Your task to perform on an android device: Turn on the flashlight Image 0: 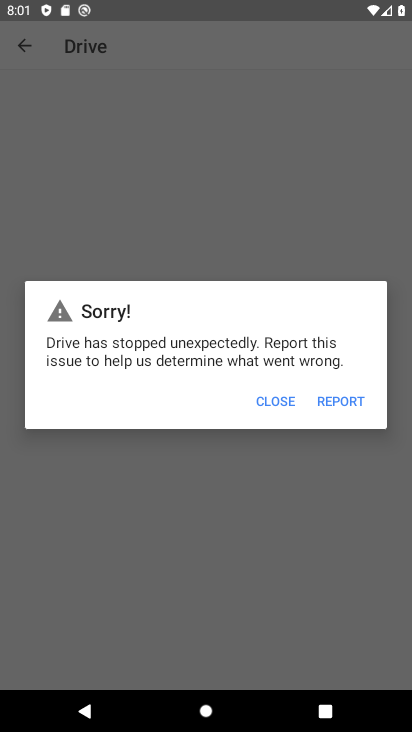
Step 0: press home button
Your task to perform on an android device: Turn on the flashlight Image 1: 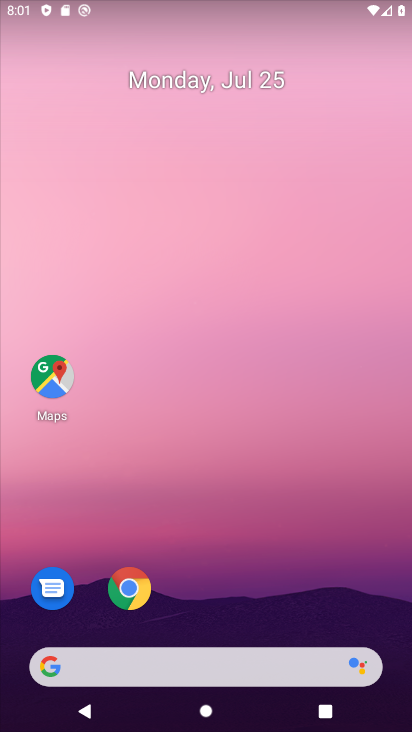
Step 1: drag from (149, 2) to (200, 441)
Your task to perform on an android device: Turn on the flashlight Image 2: 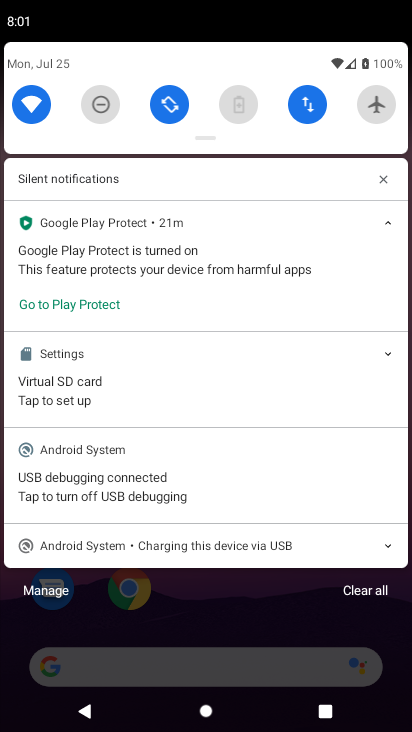
Step 2: drag from (181, 170) to (189, 489)
Your task to perform on an android device: Turn on the flashlight Image 3: 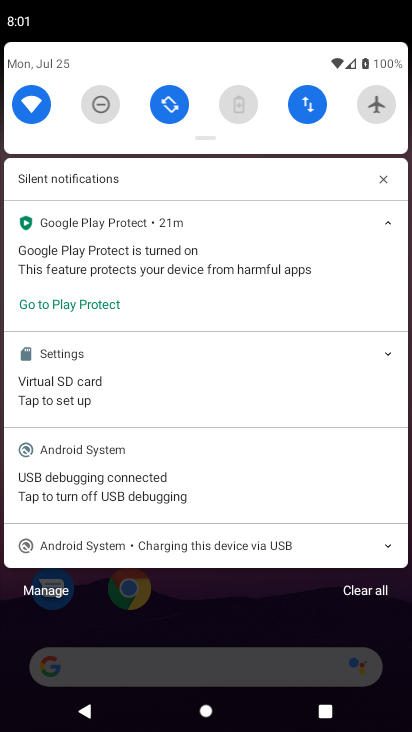
Step 3: drag from (226, 162) to (239, 438)
Your task to perform on an android device: Turn on the flashlight Image 4: 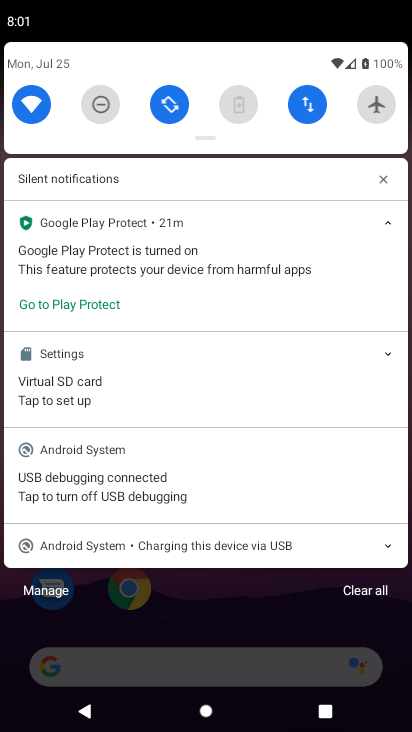
Step 4: drag from (190, 77) to (210, 492)
Your task to perform on an android device: Turn on the flashlight Image 5: 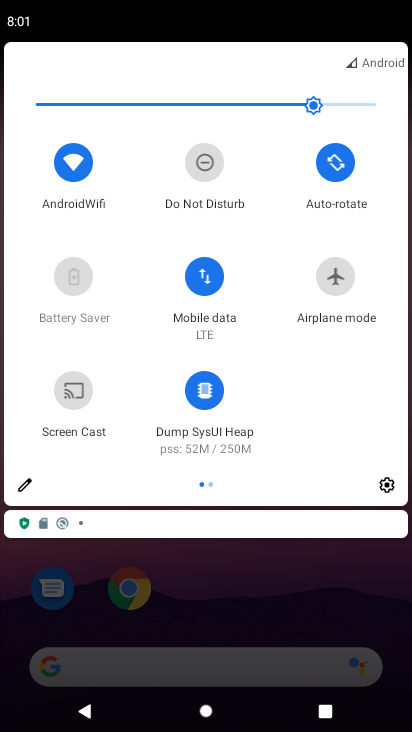
Step 5: drag from (343, 420) to (2, 462)
Your task to perform on an android device: Turn on the flashlight Image 6: 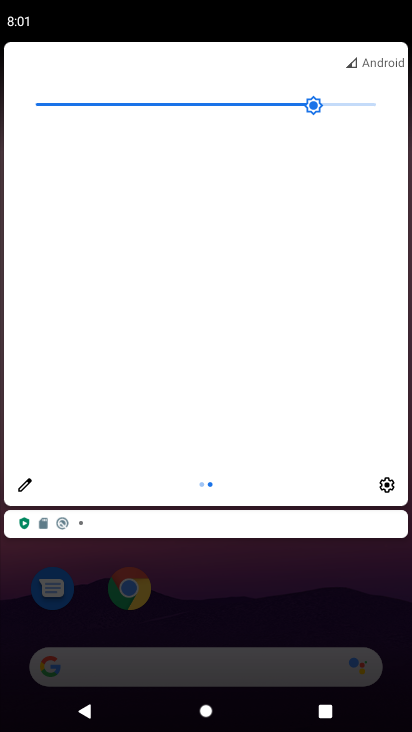
Step 6: click (25, 486)
Your task to perform on an android device: Turn on the flashlight Image 7: 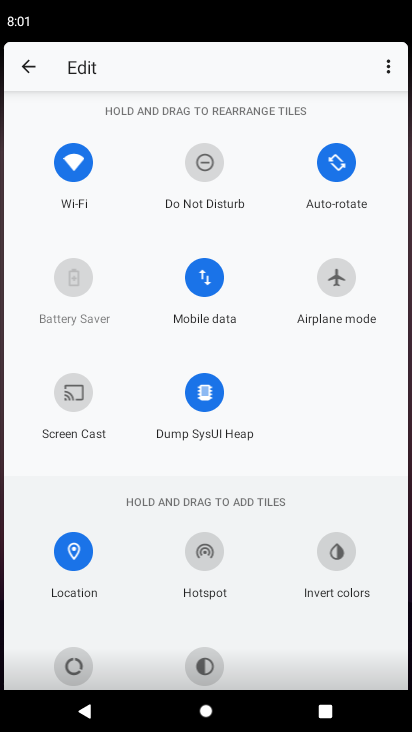
Step 7: task complete